Your task to perform on an android device: Go to Yahoo.com Image 0: 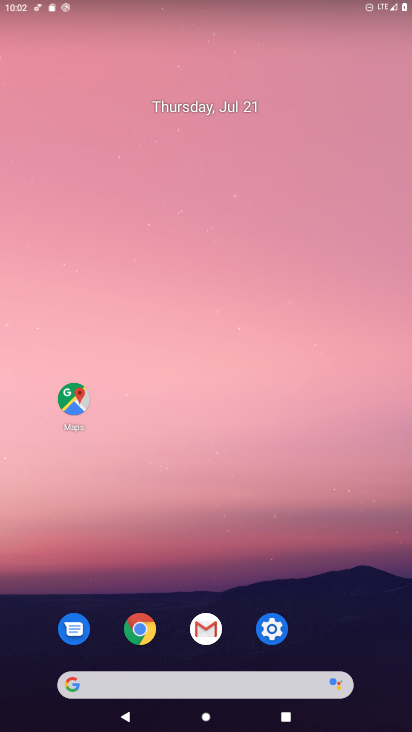
Step 0: click (150, 632)
Your task to perform on an android device: Go to Yahoo.com Image 1: 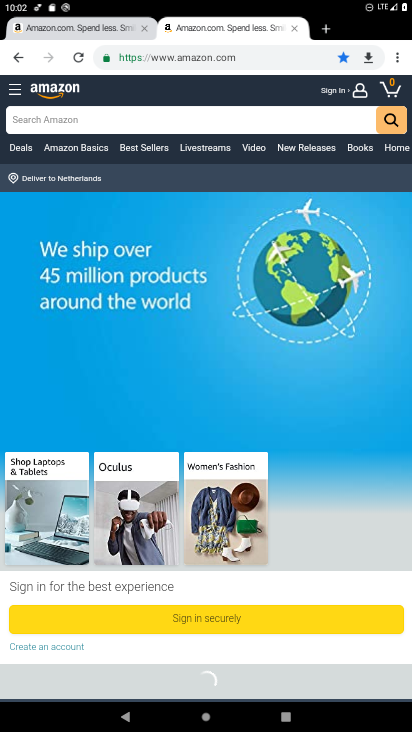
Step 1: click (332, 33)
Your task to perform on an android device: Go to Yahoo.com Image 2: 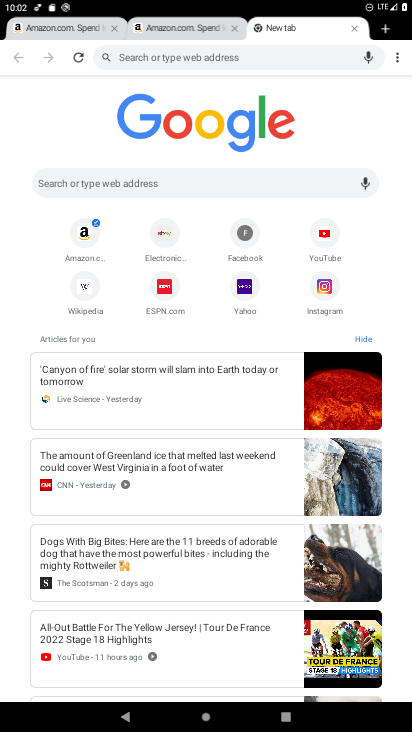
Step 2: click (244, 298)
Your task to perform on an android device: Go to Yahoo.com Image 3: 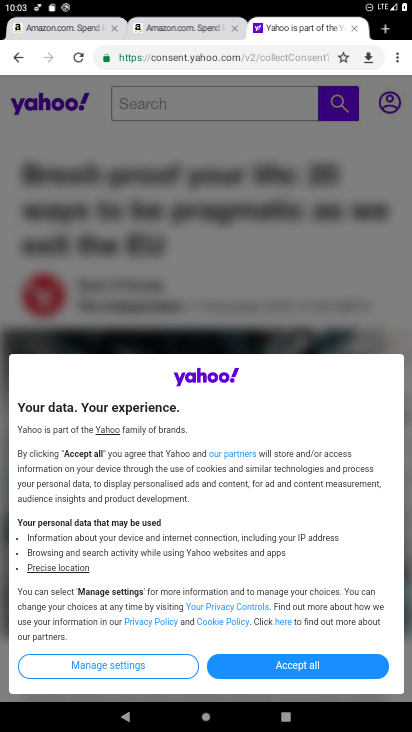
Step 3: click (280, 675)
Your task to perform on an android device: Go to Yahoo.com Image 4: 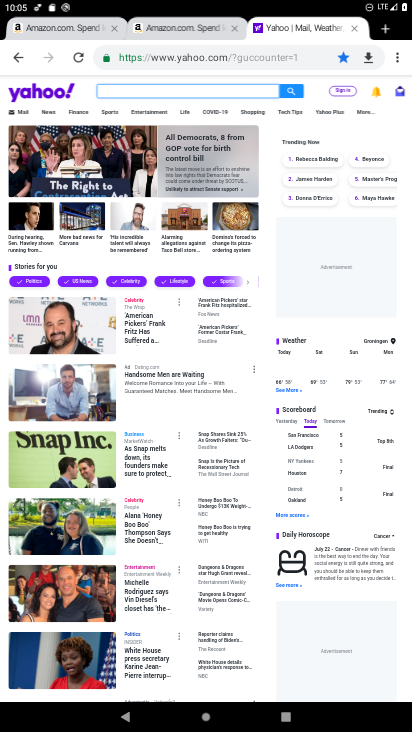
Step 4: task complete